Your task to perform on an android device: Search for sushi restaurants on Maps Image 0: 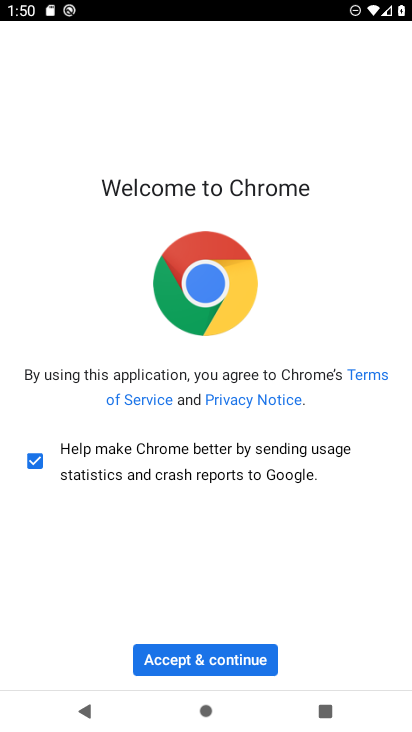
Step 0: press home button
Your task to perform on an android device: Search for sushi restaurants on Maps Image 1: 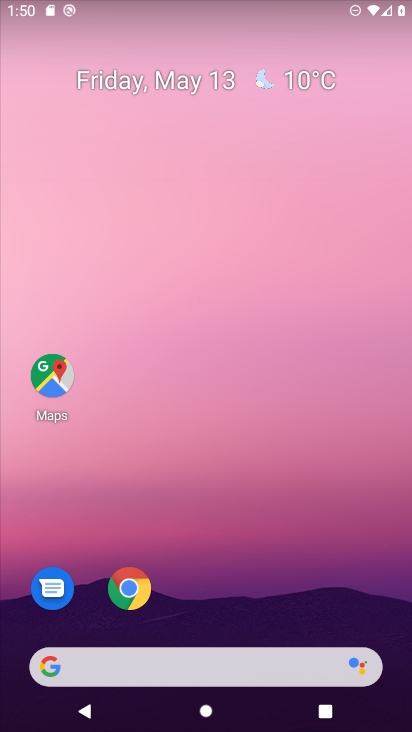
Step 1: click (45, 369)
Your task to perform on an android device: Search for sushi restaurants on Maps Image 2: 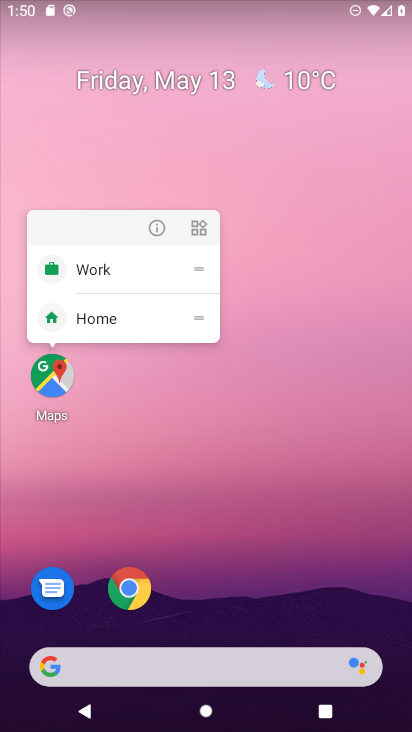
Step 2: click (57, 378)
Your task to perform on an android device: Search for sushi restaurants on Maps Image 3: 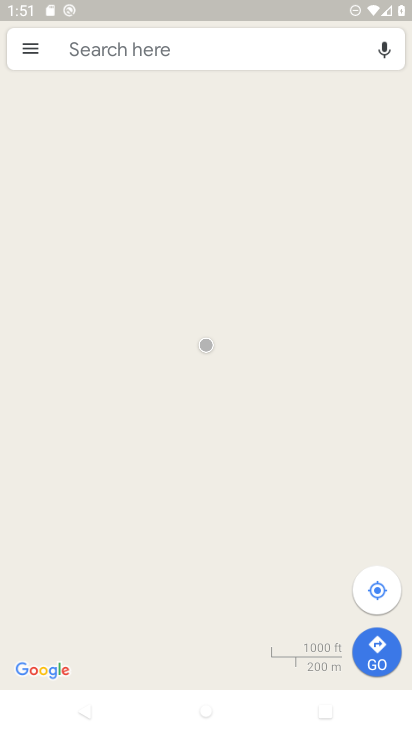
Step 3: click (88, 51)
Your task to perform on an android device: Search for sushi restaurants on Maps Image 4: 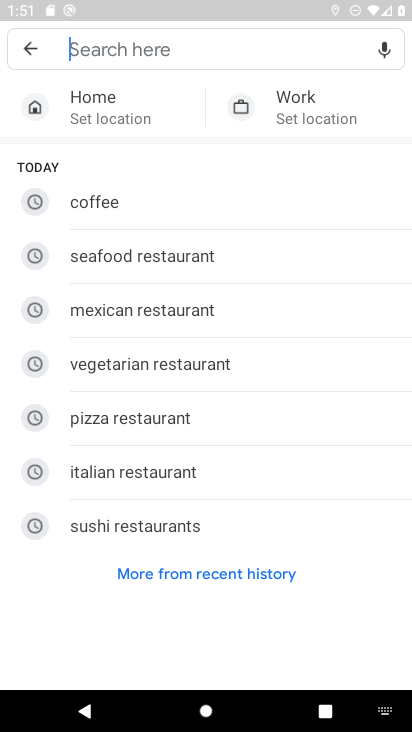
Step 4: type " sushi restaurants "
Your task to perform on an android device: Search for sushi restaurants on Maps Image 5: 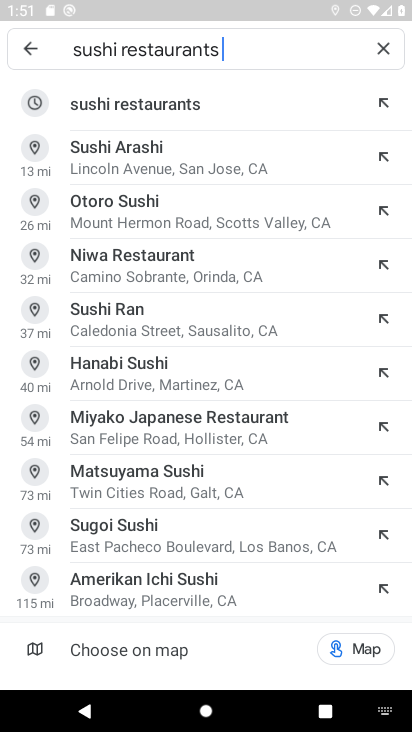
Step 5: click (169, 103)
Your task to perform on an android device: Search for sushi restaurants on Maps Image 6: 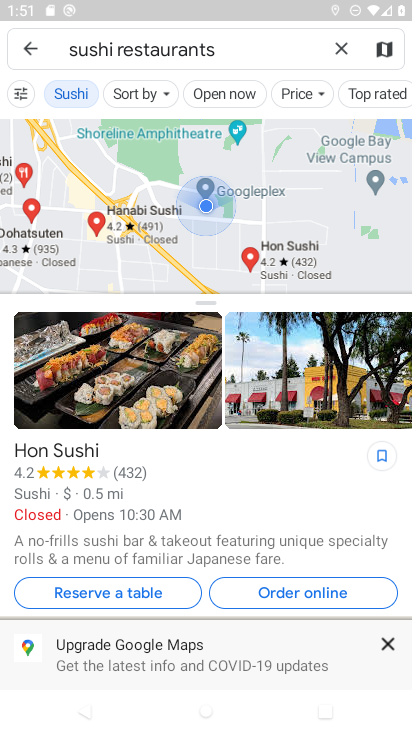
Step 6: task complete